Your task to perform on an android device: Clear the shopping cart on amazon.com. Search for "razer blackwidow" on amazon.com, select the first entry, and add it to the cart. Image 0: 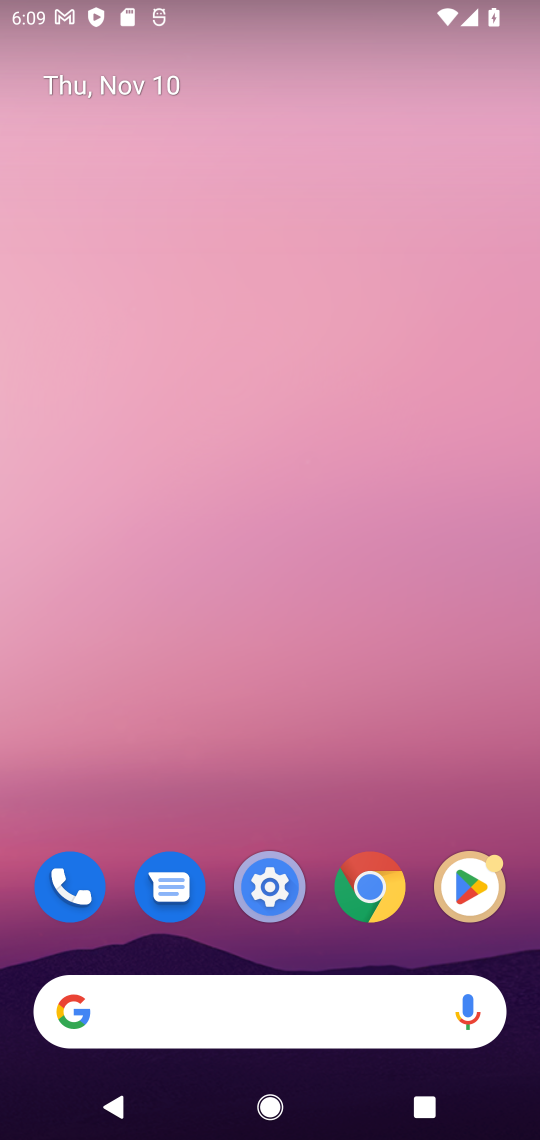
Step 0: click (220, 982)
Your task to perform on an android device: Clear the shopping cart on amazon.com. Search for "razer blackwidow" on amazon.com, select the first entry, and add it to the cart. Image 1: 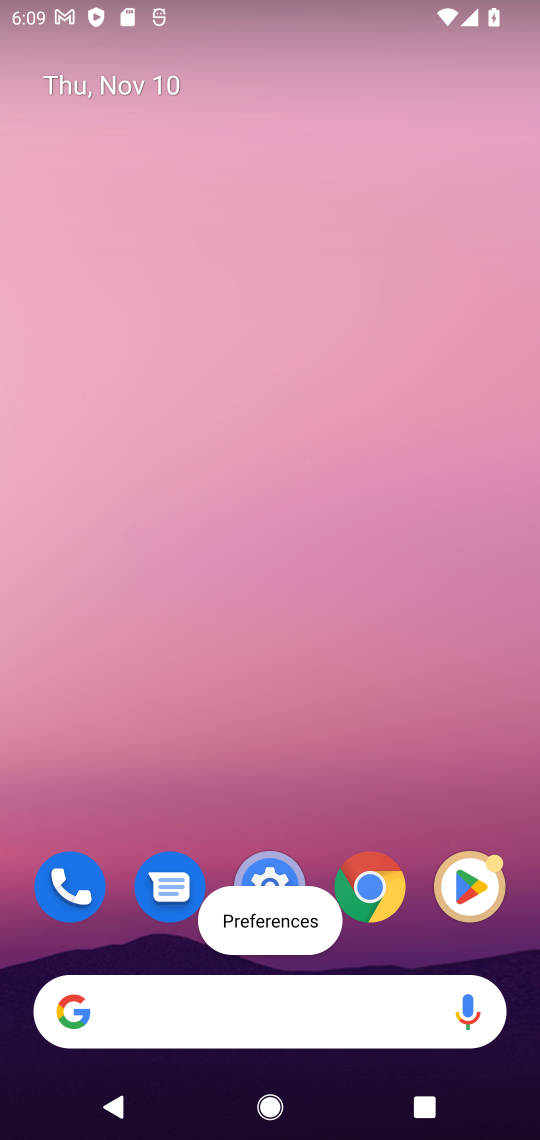
Step 1: click (79, 1004)
Your task to perform on an android device: Clear the shopping cart on amazon.com. Search for "razer blackwidow" on amazon.com, select the first entry, and add it to the cart. Image 2: 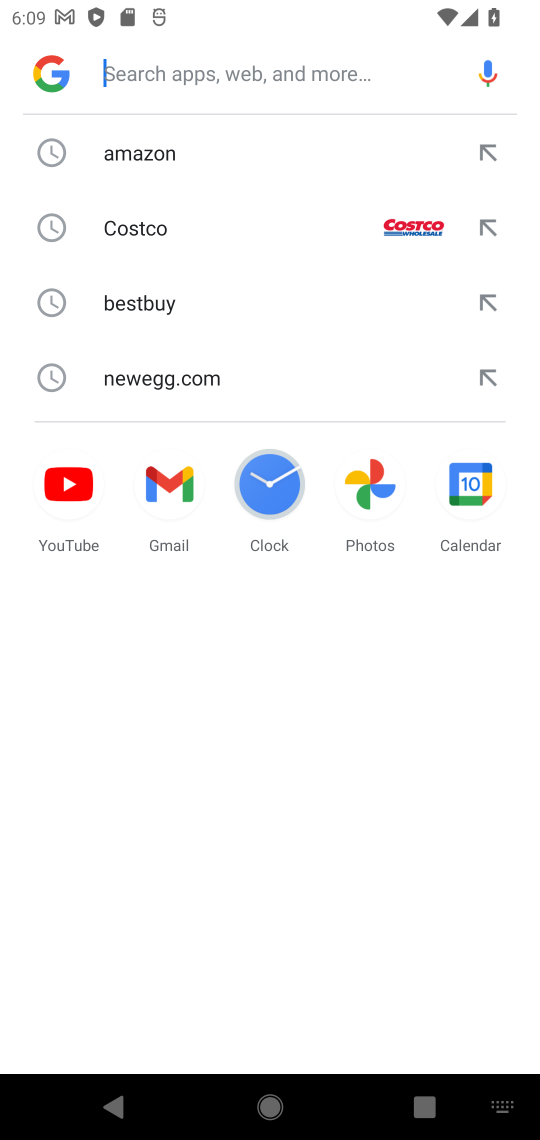
Step 2: type "amazon"
Your task to perform on an android device: Clear the shopping cart on amazon.com. Search for "razer blackwidow" on amazon.com, select the first entry, and add it to the cart. Image 3: 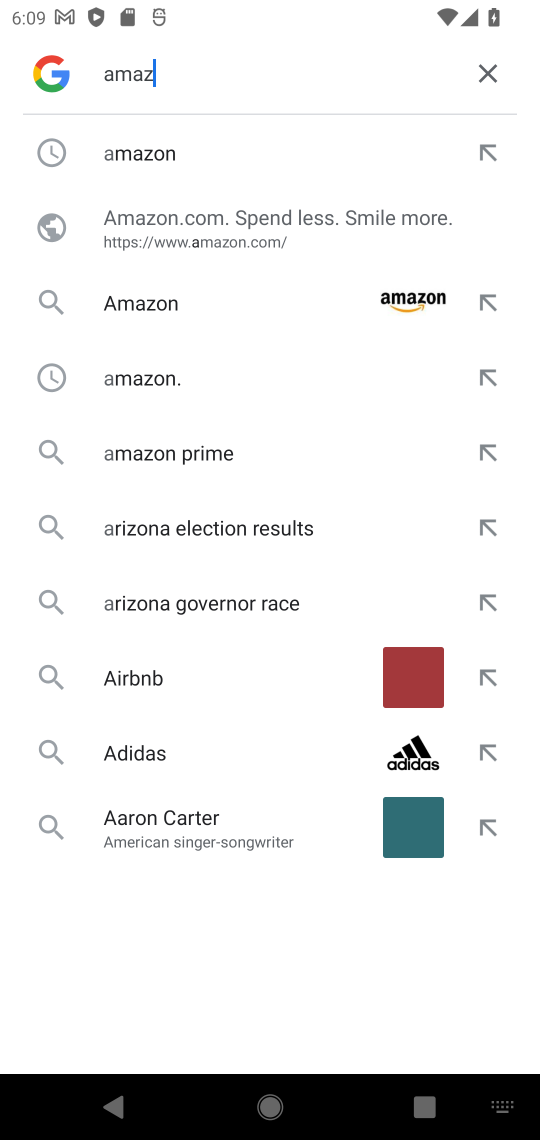
Step 3: type ""
Your task to perform on an android device: Clear the shopping cart on amazon.com. Search for "razer blackwidow" on amazon.com, select the first entry, and add it to the cart. Image 4: 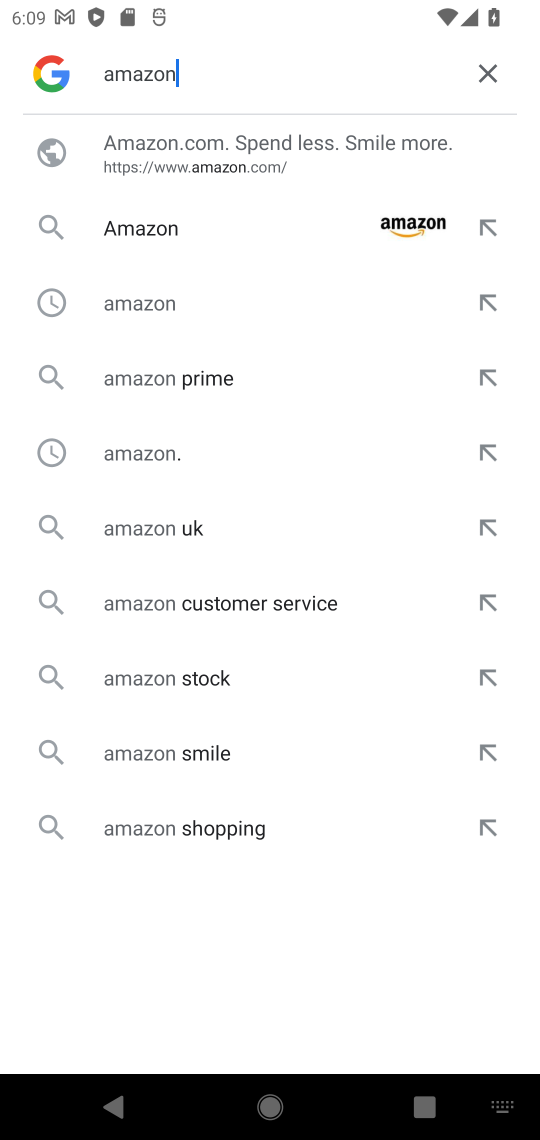
Step 4: click (151, 227)
Your task to perform on an android device: Clear the shopping cart on amazon.com. Search for "razer blackwidow" on amazon.com, select the first entry, and add it to the cart. Image 5: 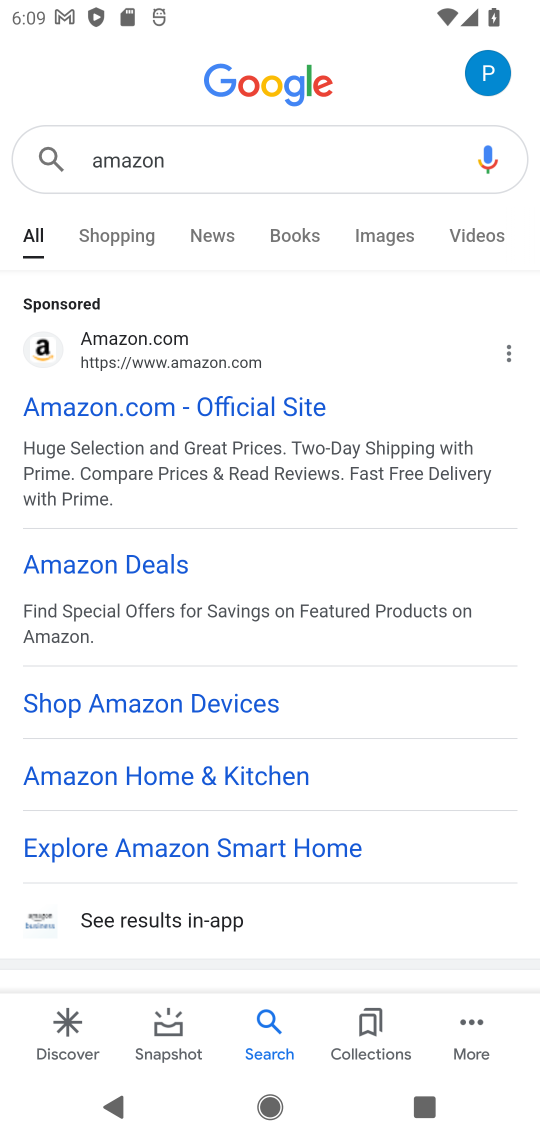
Step 5: click (42, 404)
Your task to perform on an android device: Clear the shopping cart on amazon.com. Search for "razer blackwidow" on amazon.com, select the first entry, and add it to the cart. Image 6: 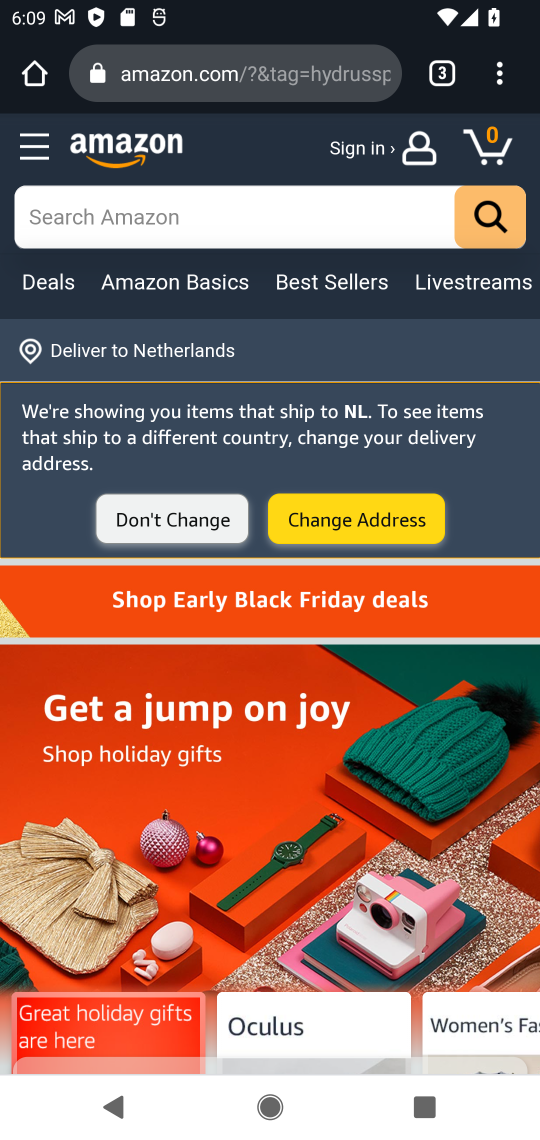
Step 6: click (91, 202)
Your task to perform on an android device: Clear the shopping cart on amazon.com. Search for "razer blackwidow" on amazon.com, select the first entry, and add it to the cart. Image 7: 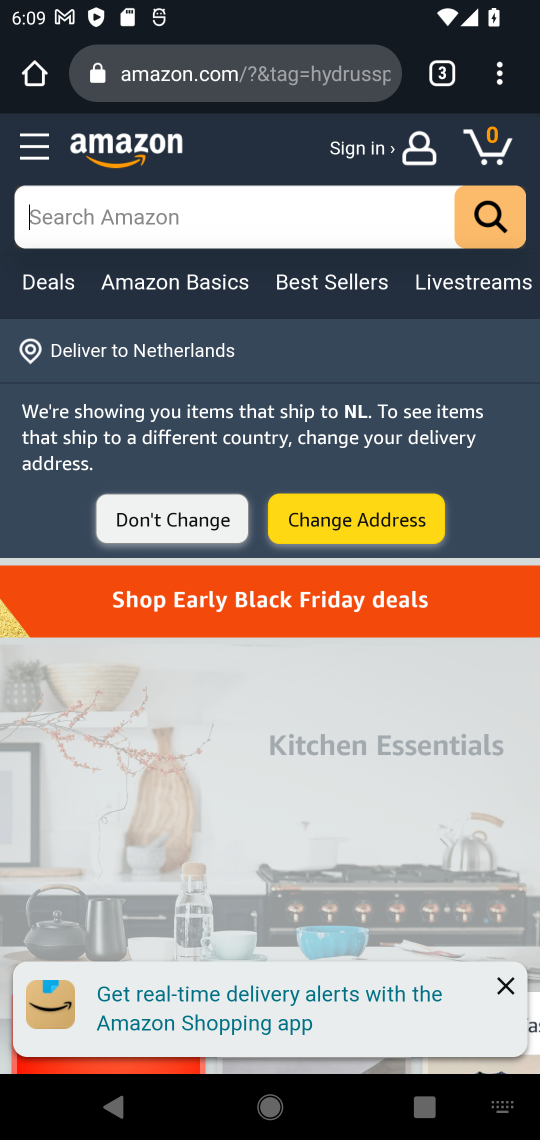
Step 7: click (112, 212)
Your task to perform on an android device: Clear the shopping cart on amazon.com. Search for "razer blackwidow" on amazon.com, select the first entry, and add it to the cart. Image 8: 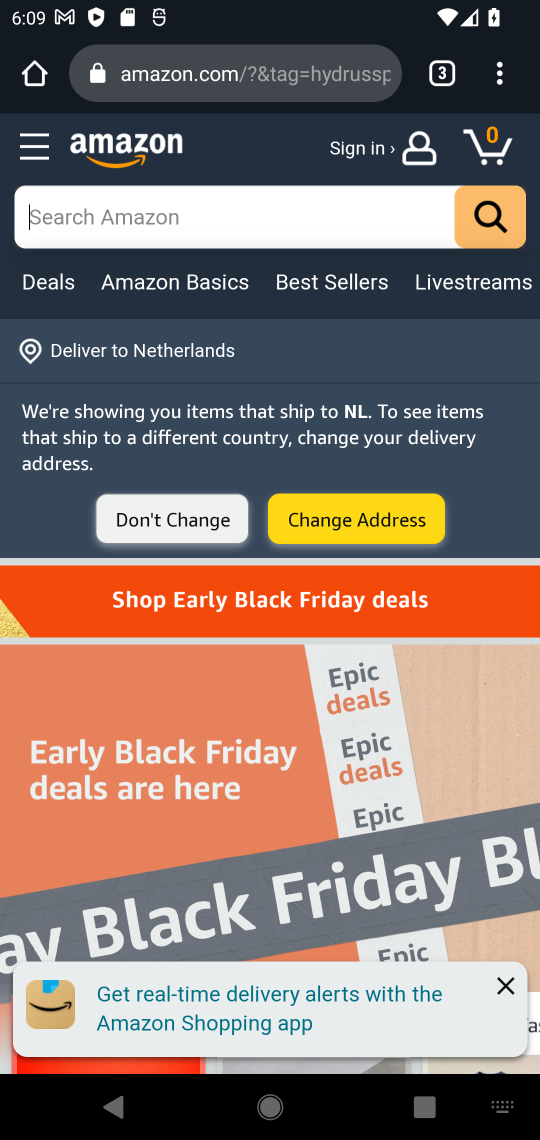
Step 8: type "razer blackwidow"
Your task to perform on an android device: Clear the shopping cart on amazon.com. Search for "razer blackwidow" on amazon.com, select the first entry, and add it to the cart. Image 9: 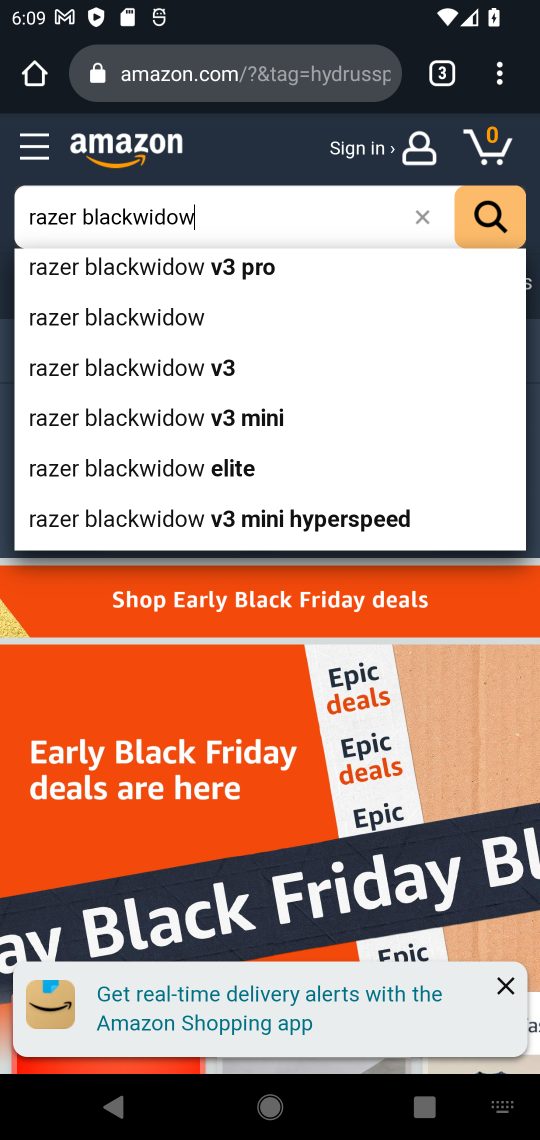
Step 9: click (107, 312)
Your task to perform on an android device: Clear the shopping cart on amazon.com. Search for "razer blackwidow" on amazon.com, select the first entry, and add it to the cart. Image 10: 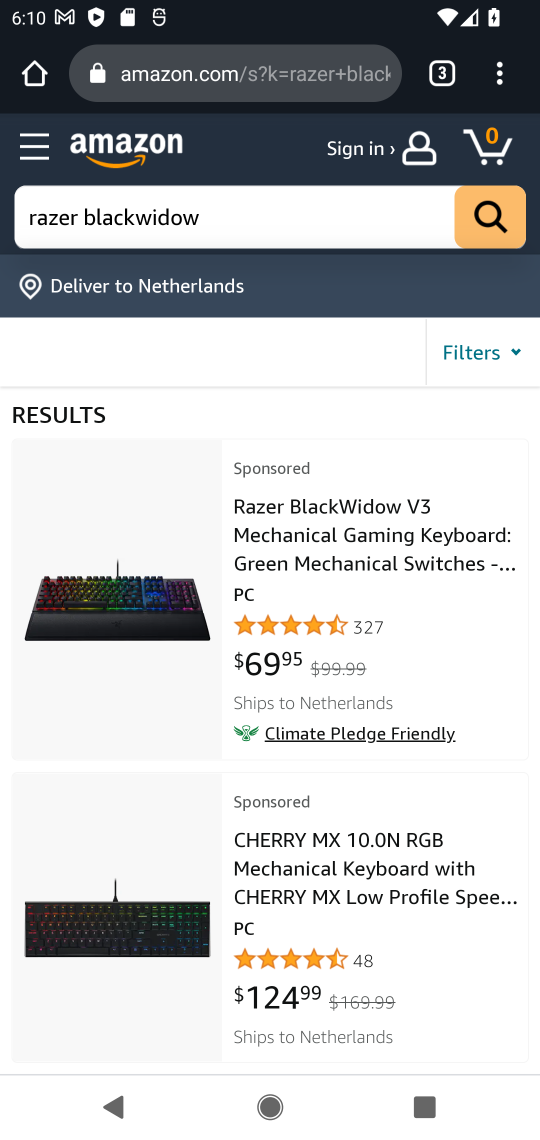
Step 10: click (323, 524)
Your task to perform on an android device: Clear the shopping cart on amazon.com. Search for "razer blackwidow" on amazon.com, select the first entry, and add it to the cart. Image 11: 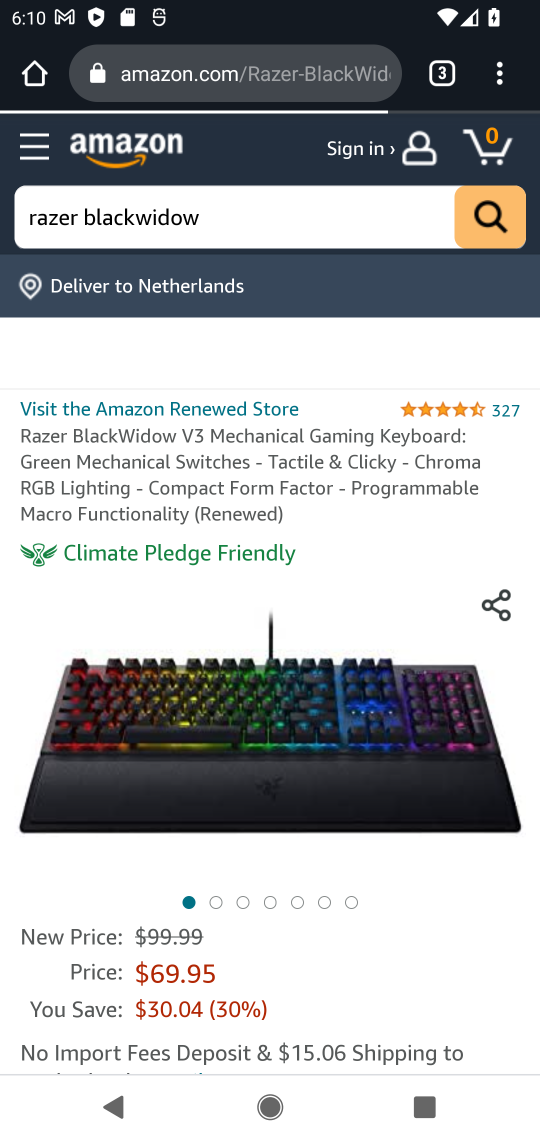
Step 11: drag from (373, 936) to (317, 499)
Your task to perform on an android device: Clear the shopping cart on amazon.com. Search for "razer blackwidow" on amazon.com, select the first entry, and add it to the cart. Image 12: 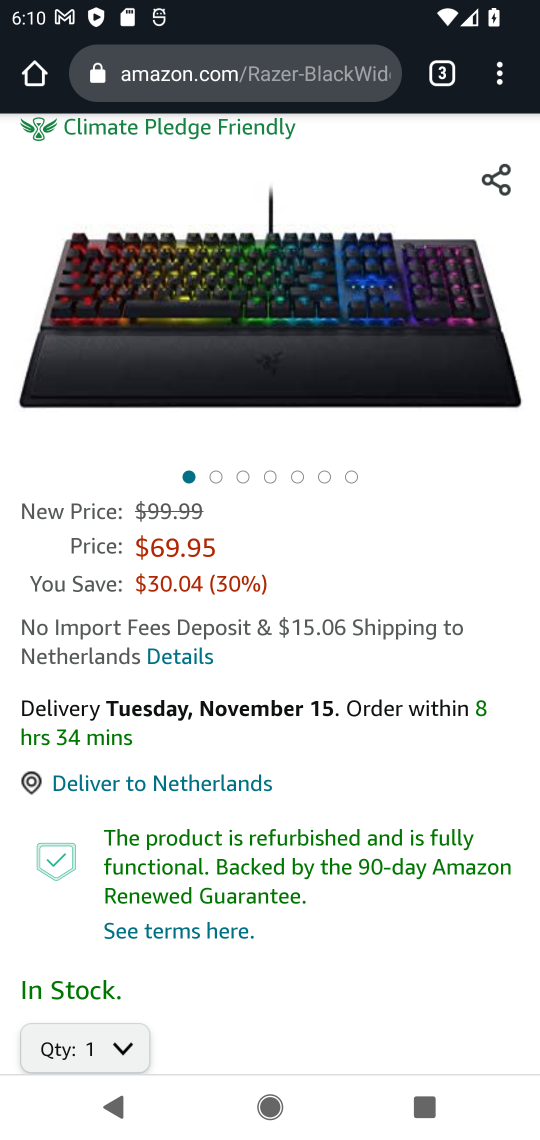
Step 12: drag from (244, 986) to (202, 706)
Your task to perform on an android device: Clear the shopping cart on amazon.com. Search for "razer blackwidow" on amazon.com, select the first entry, and add it to the cart. Image 13: 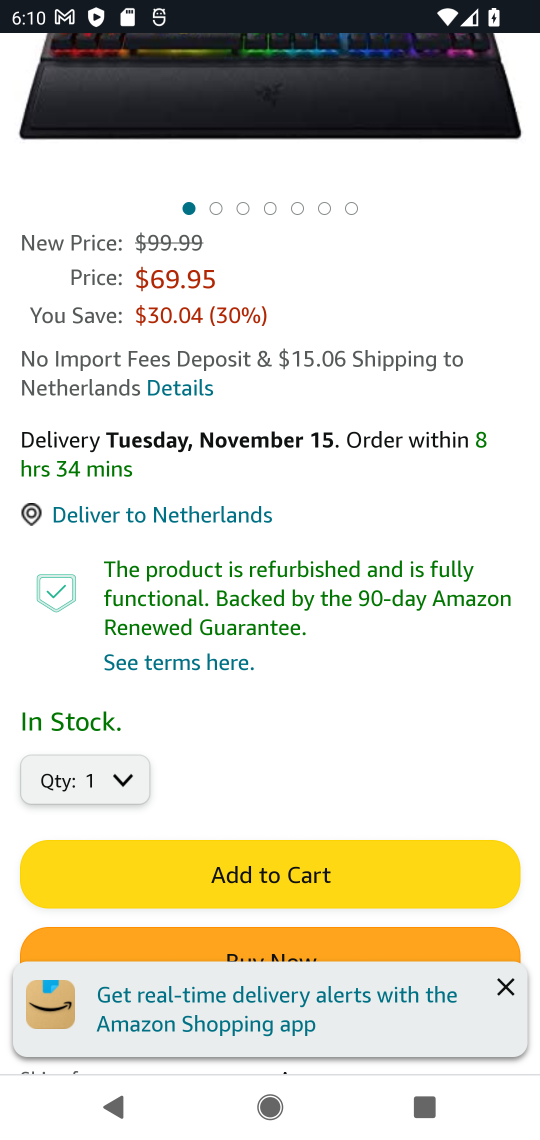
Step 13: click (251, 879)
Your task to perform on an android device: Clear the shopping cart on amazon.com. Search for "razer blackwidow" on amazon.com, select the first entry, and add it to the cart. Image 14: 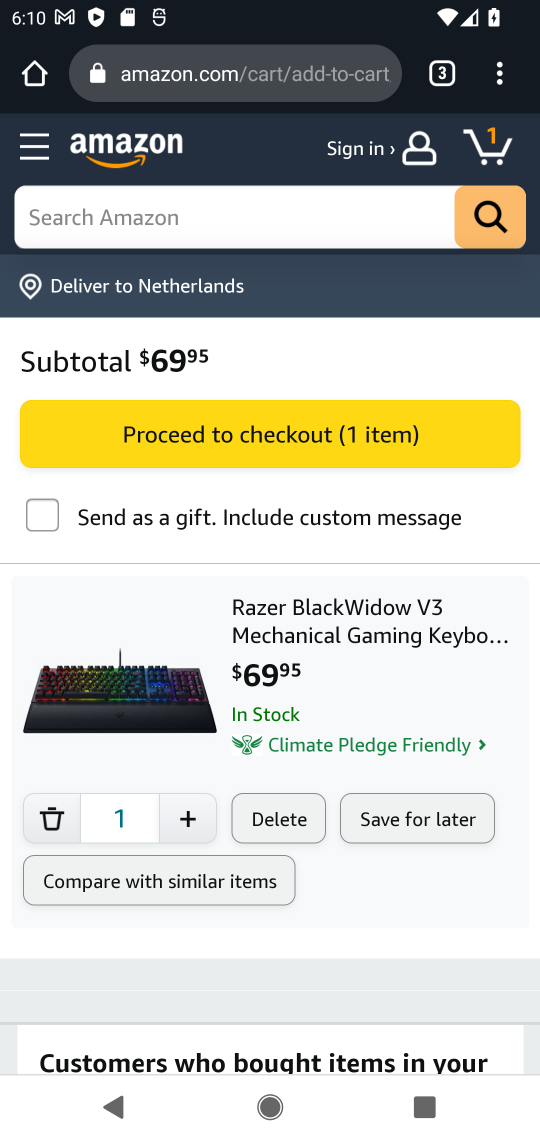
Step 14: task complete